Your task to perform on an android device: change the clock display to show seconds Image 0: 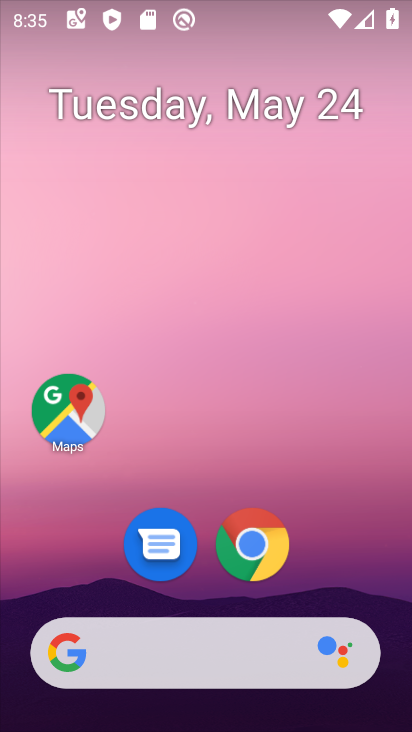
Step 0: drag from (386, 575) to (263, 45)
Your task to perform on an android device: change the clock display to show seconds Image 1: 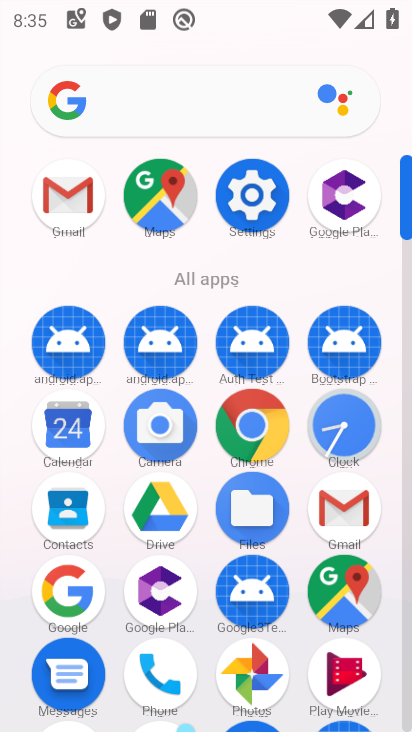
Step 1: click (263, 45)
Your task to perform on an android device: change the clock display to show seconds Image 2: 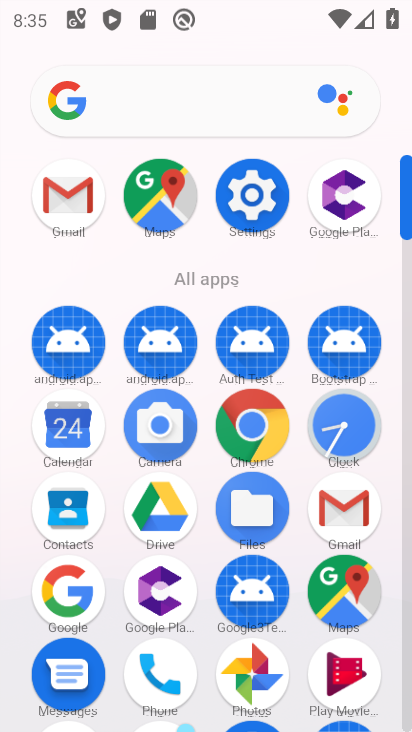
Step 2: click (335, 415)
Your task to perform on an android device: change the clock display to show seconds Image 3: 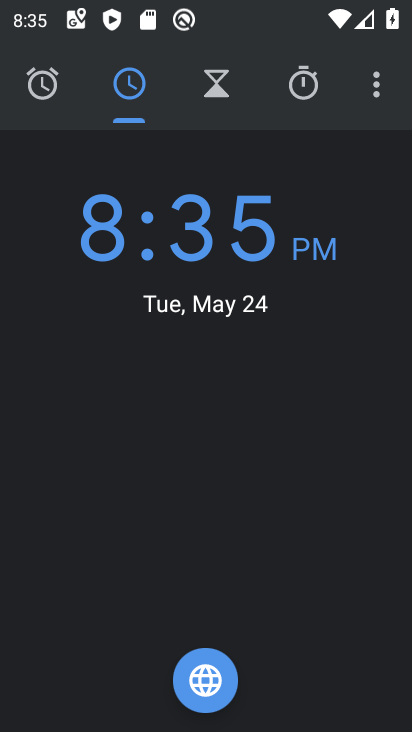
Step 3: click (375, 103)
Your task to perform on an android device: change the clock display to show seconds Image 4: 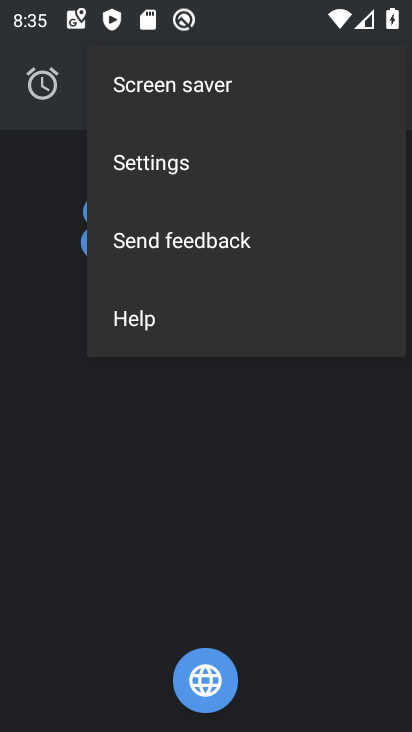
Step 4: click (290, 179)
Your task to perform on an android device: change the clock display to show seconds Image 5: 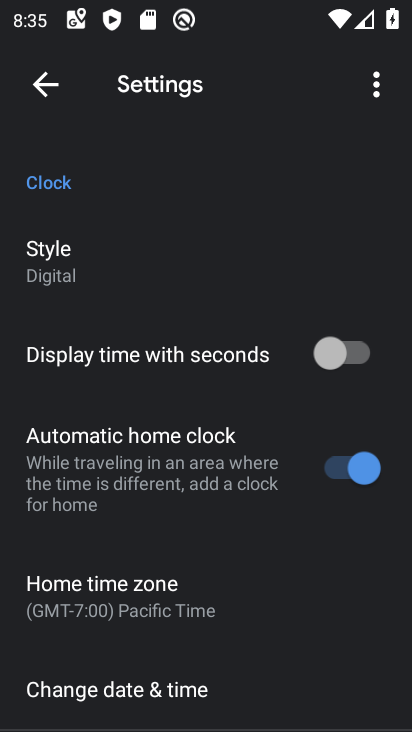
Step 5: click (338, 353)
Your task to perform on an android device: change the clock display to show seconds Image 6: 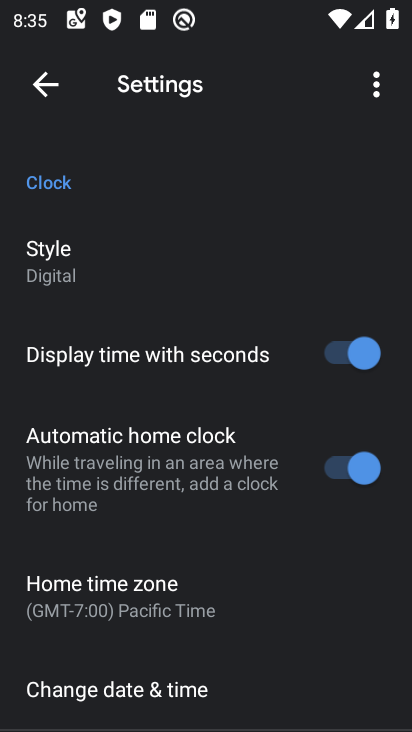
Step 6: task complete